Your task to perform on an android device: delete a single message in the gmail app Image 0: 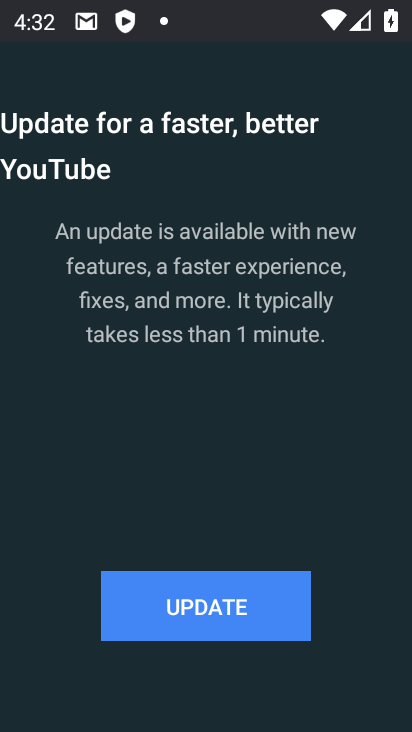
Step 0: click (202, 618)
Your task to perform on an android device: delete a single message in the gmail app Image 1: 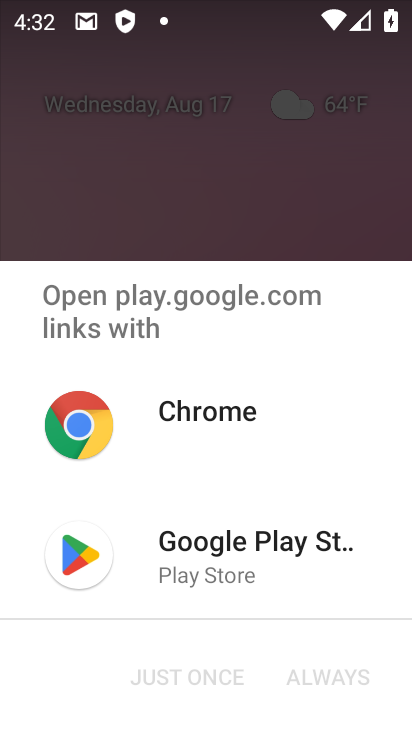
Step 1: click (241, 540)
Your task to perform on an android device: delete a single message in the gmail app Image 2: 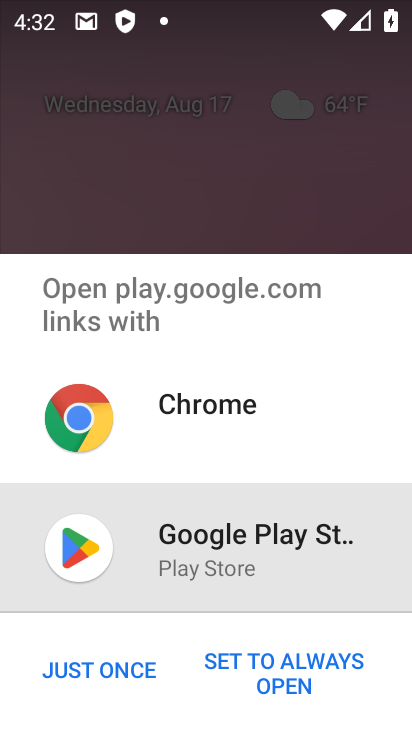
Step 2: click (264, 668)
Your task to perform on an android device: delete a single message in the gmail app Image 3: 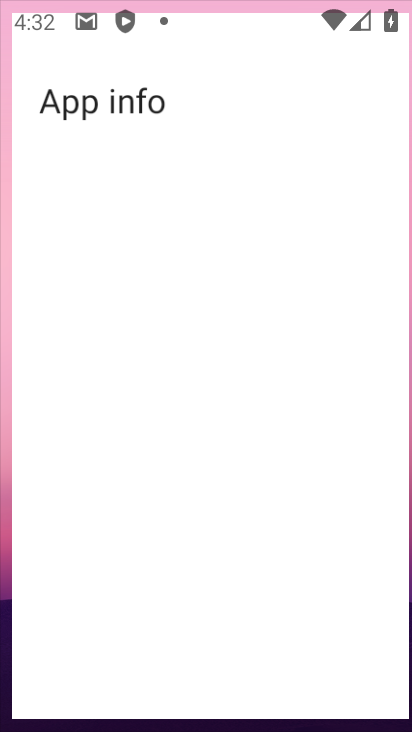
Step 3: click (250, 668)
Your task to perform on an android device: delete a single message in the gmail app Image 4: 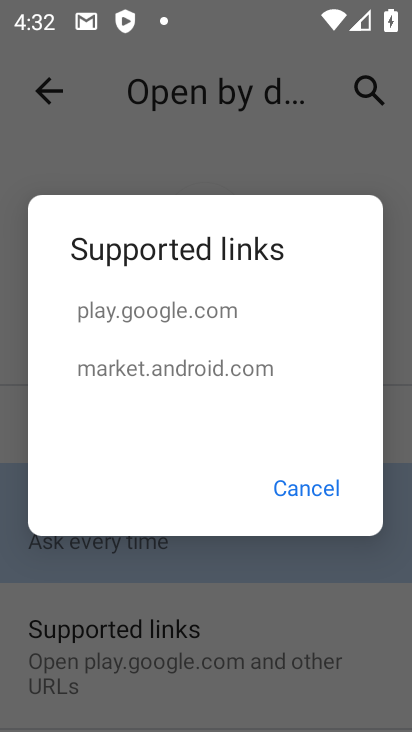
Step 4: click (291, 498)
Your task to perform on an android device: delete a single message in the gmail app Image 5: 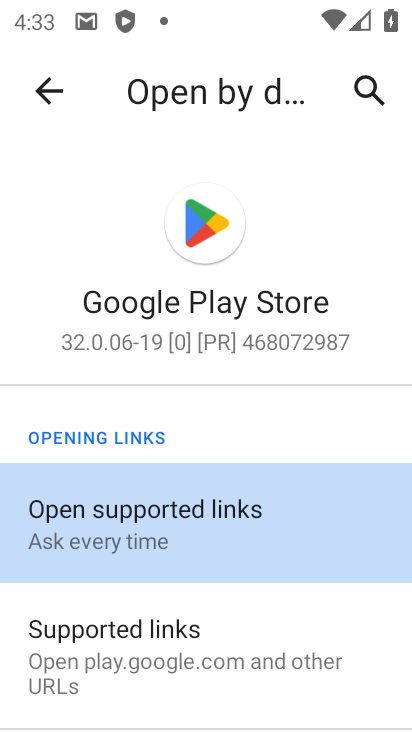
Step 5: click (222, 515)
Your task to perform on an android device: delete a single message in the gmail app Image 6: 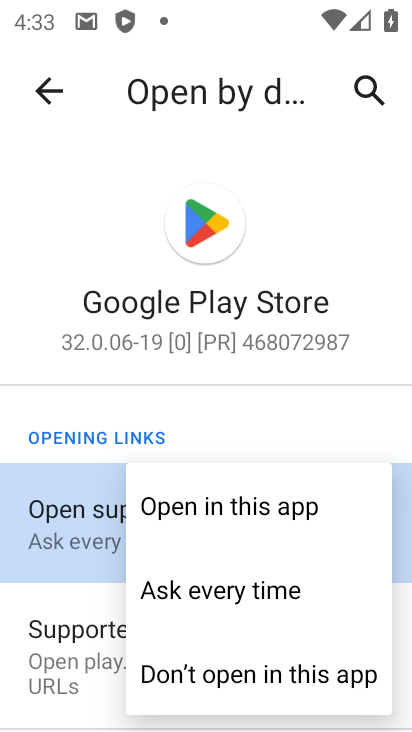
Step 6: click (236, 506)
Your task to perform on an android device: delete a single message in the gmail app Image 7: 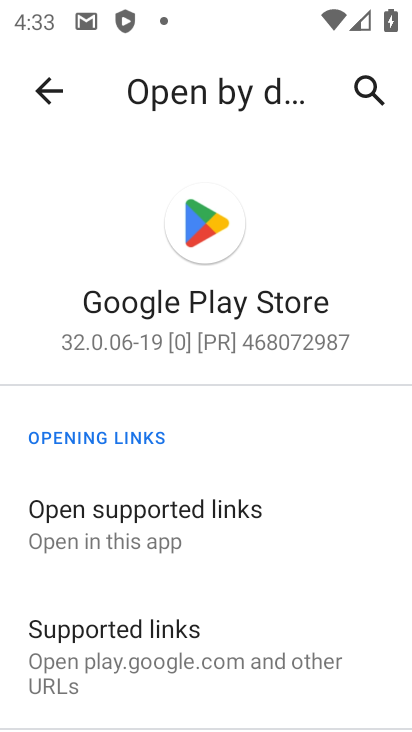
Step 7: click (70, 542)
Your task to perform on an android device: delete a single message in the gmail app Image 8: 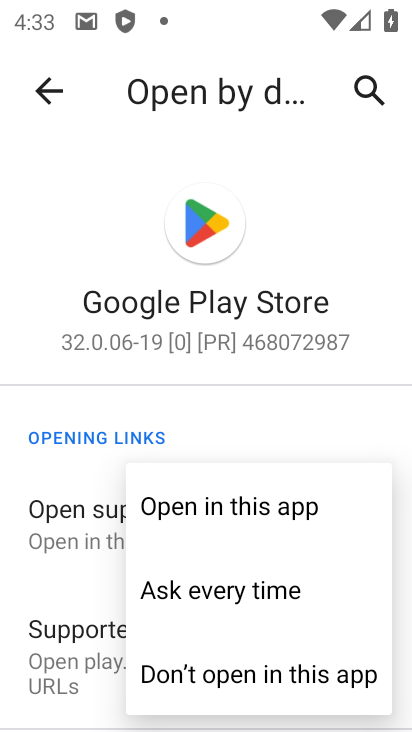
Step 8: click (159, 515)
Your task to perform on an android device: delete a single message in the gmail app Image 9: 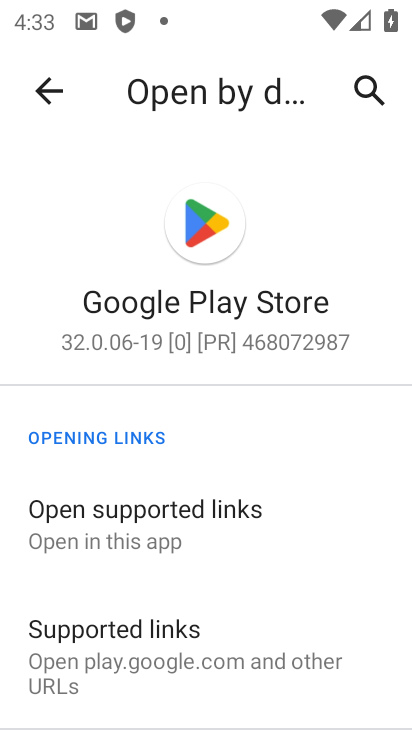
Step 9: click (45, 98)
Your task to perform on an android device: delete a single message in the gmail app Image 10: 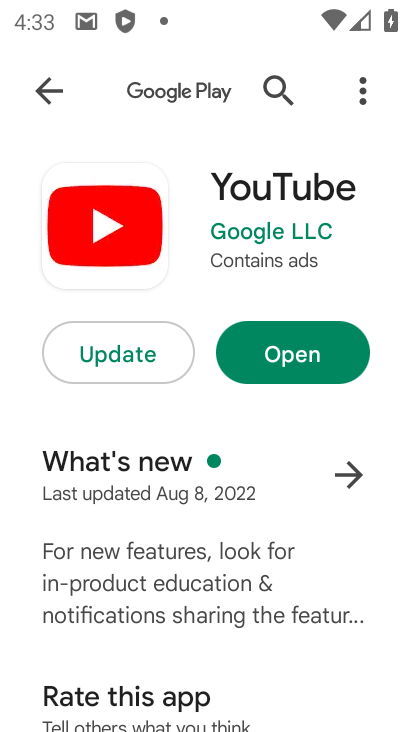
Step 10: click (89, 347)
Your task to perform on an android device: delete a single message in the gmail app Image 11: 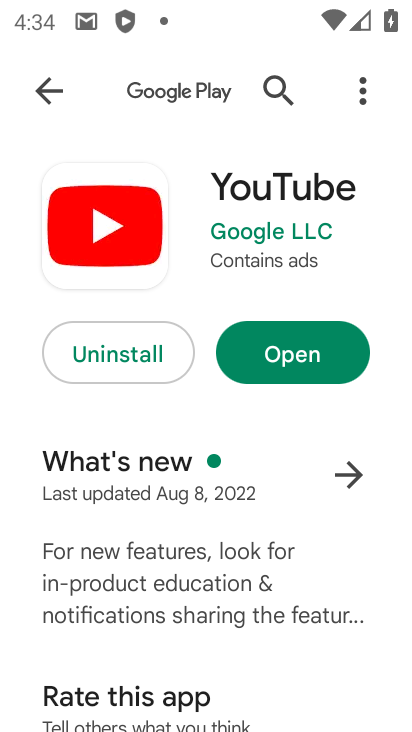
Step 11: click (300, 346)
Your task to perform on an android device: delete a single message in the gmail app Image 12: 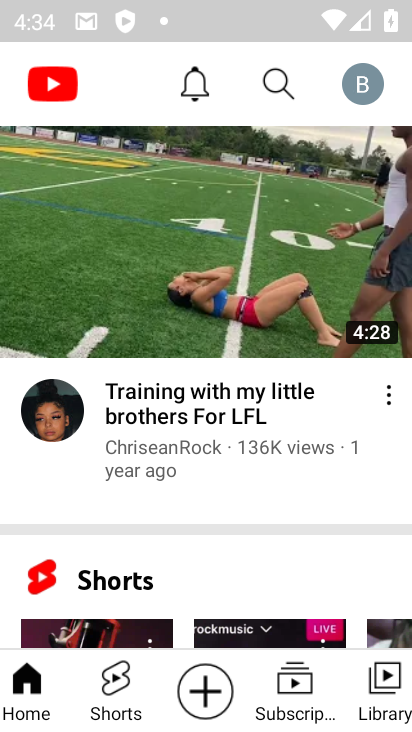
Step 12: press home button
Your task to perform on an android device: delete a single message in the gmail app Image 13: 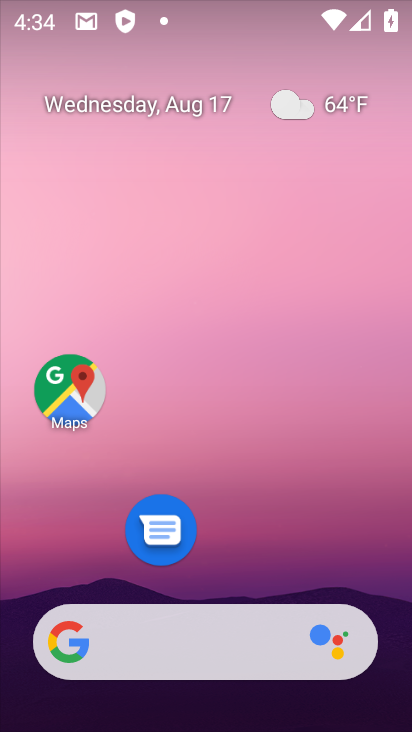
Step 13: drag from (194, 423) to (198, 11)
Your task to perform on an android device: delete a single message in the gmail app Image 14: 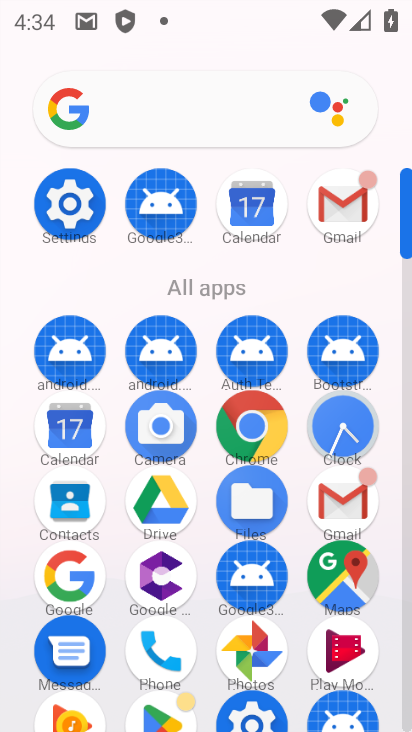
Step 14: click (334, 214)
Your task to perform on an android device: delete a single message in the gmail app Image 15: 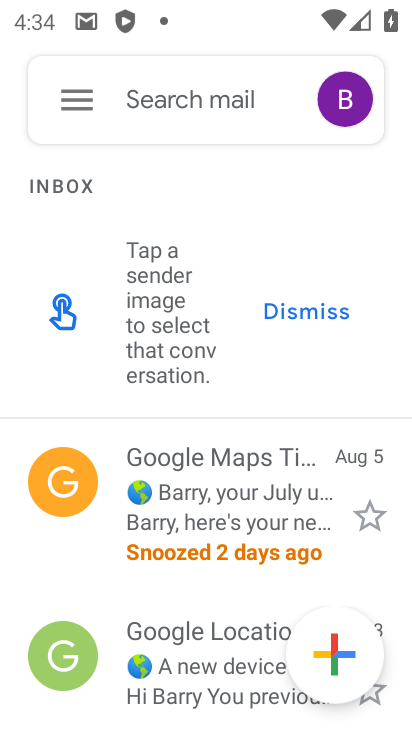
Step 15: click (249, 511)
Your task to perform on an android device: delete a single message in the gmail app Image 16: 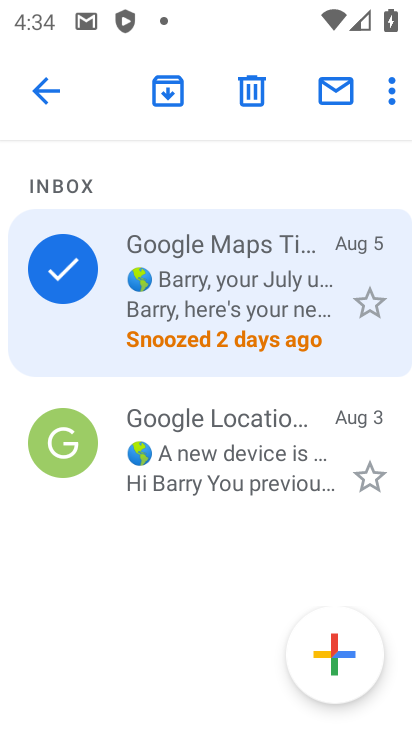
Step 16: click (256, 91)
Your task to perform on an android device: delete a single message in the gmail app Image 17: 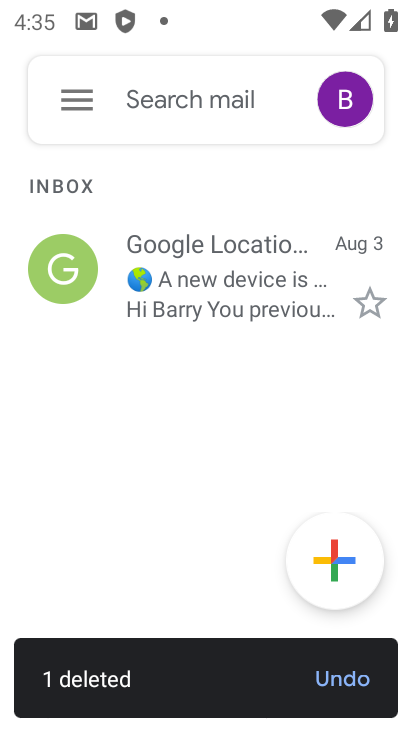
Step 17: task complete